Your task to perform on an android device: Is it going to rain today? Image 0: 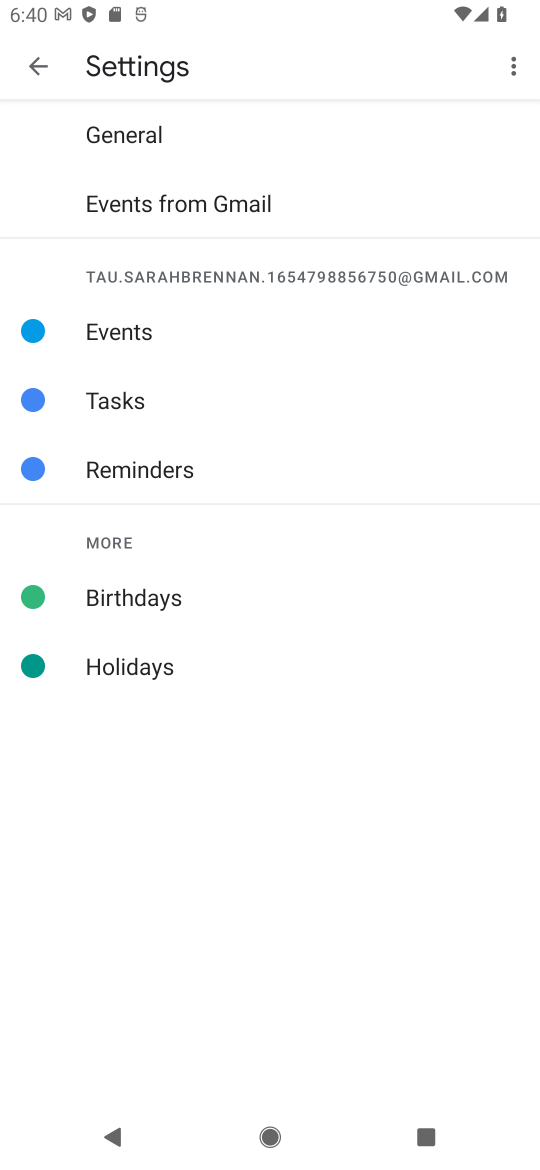
Step 0: press home button
Your task to perform on an android device: Is it going to rain today? Image 1: 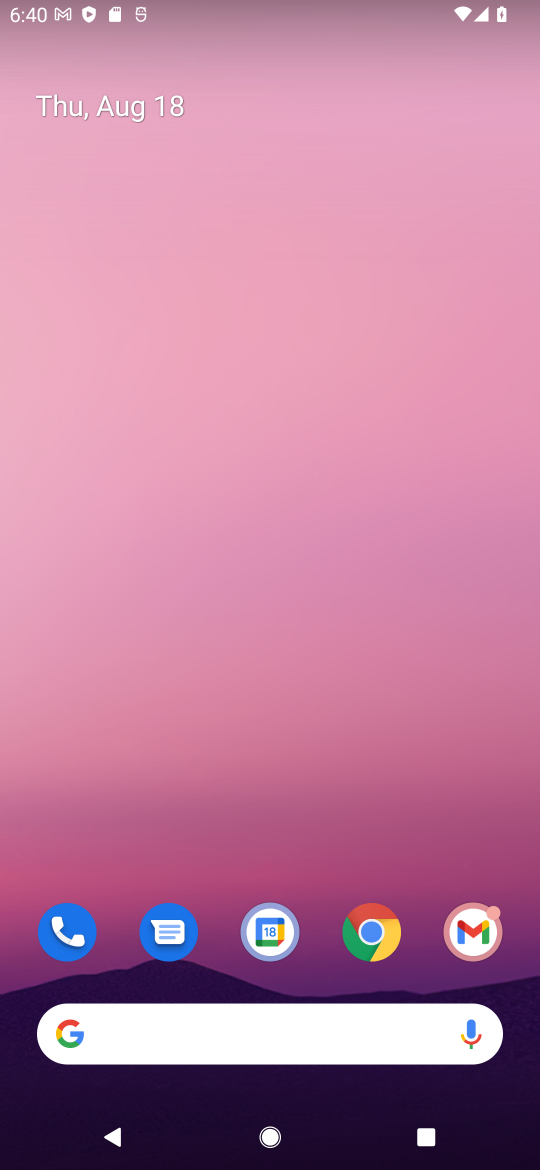
Step 1: drag from (376, 886) to (325, 61)
Your task to perform on an android device: Is it going to rain today? Image 2: 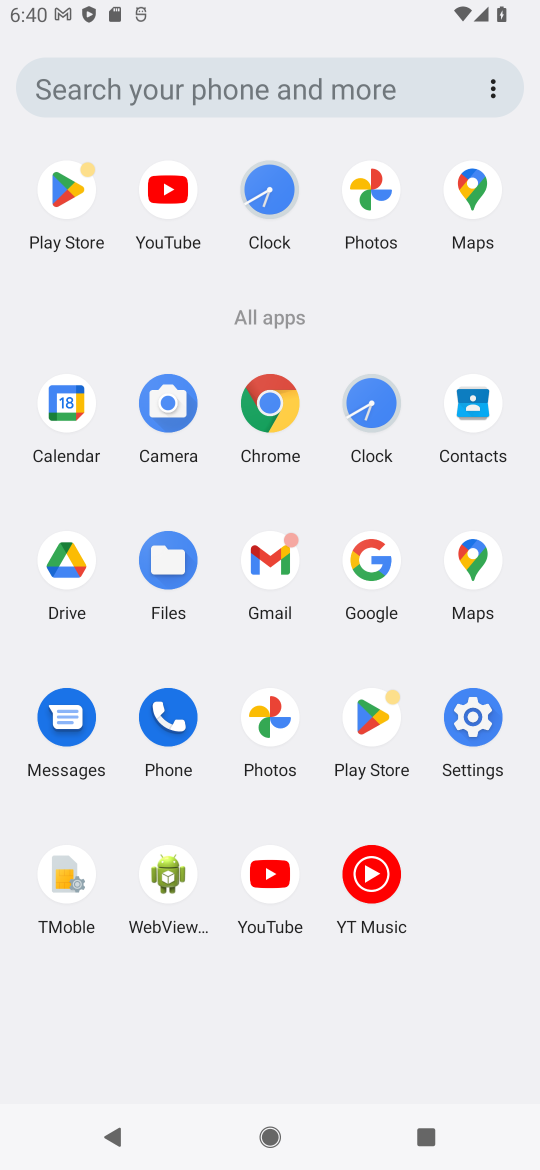
Step 2: click (270, 392)
Your task to perform on an android device: Is it going to rain today? Image 3: 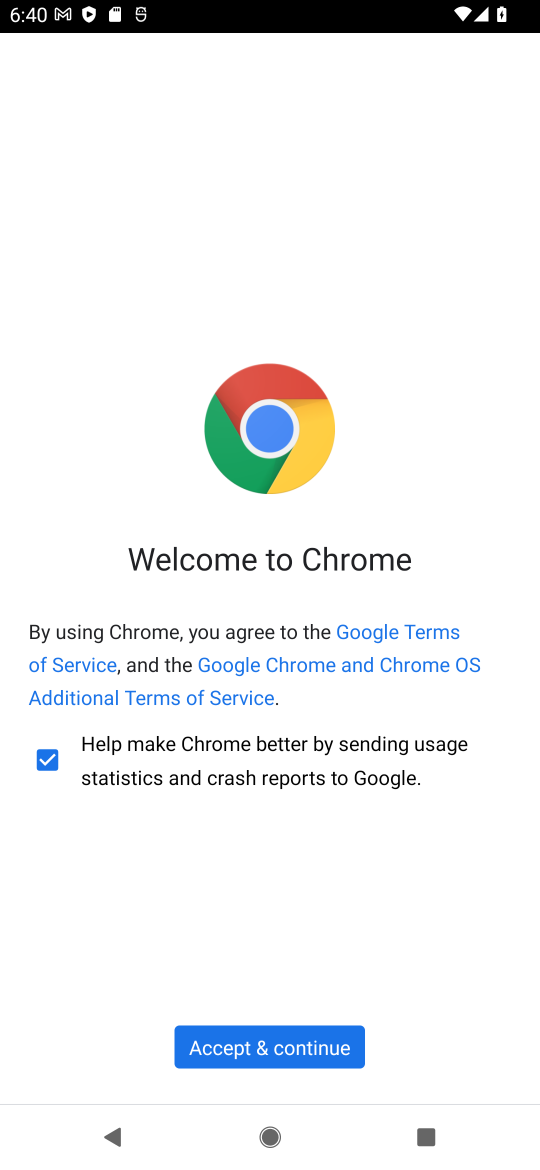
Step 3: click (290, 1050)
Your task to perform on an android device: Is it going to rain today? Image 4: 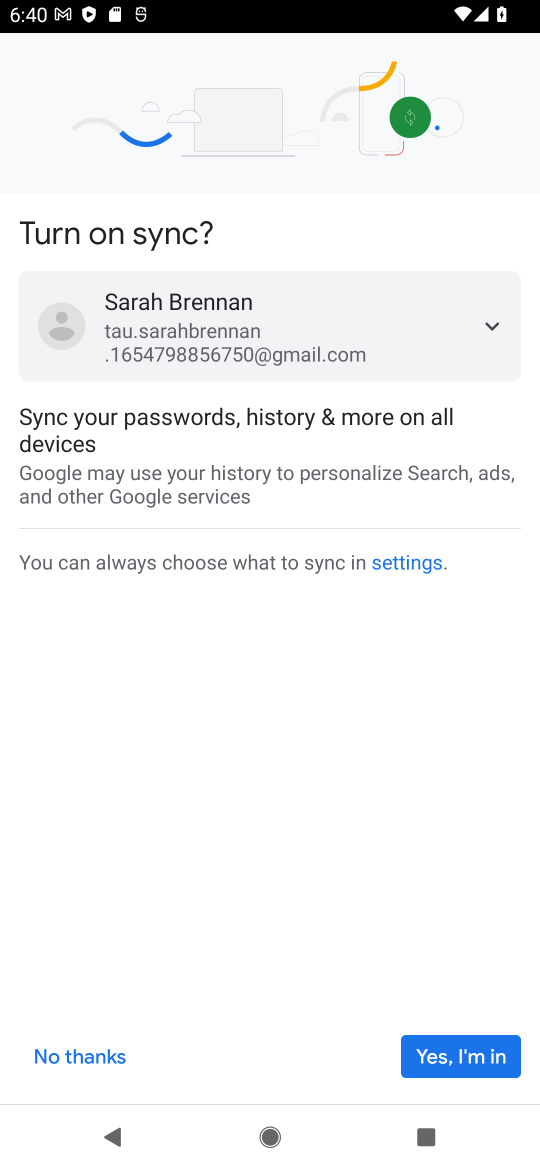
Step 4: click (434, 1050)
Your task to perform on an android device: Is it going to rain today? Image 5: 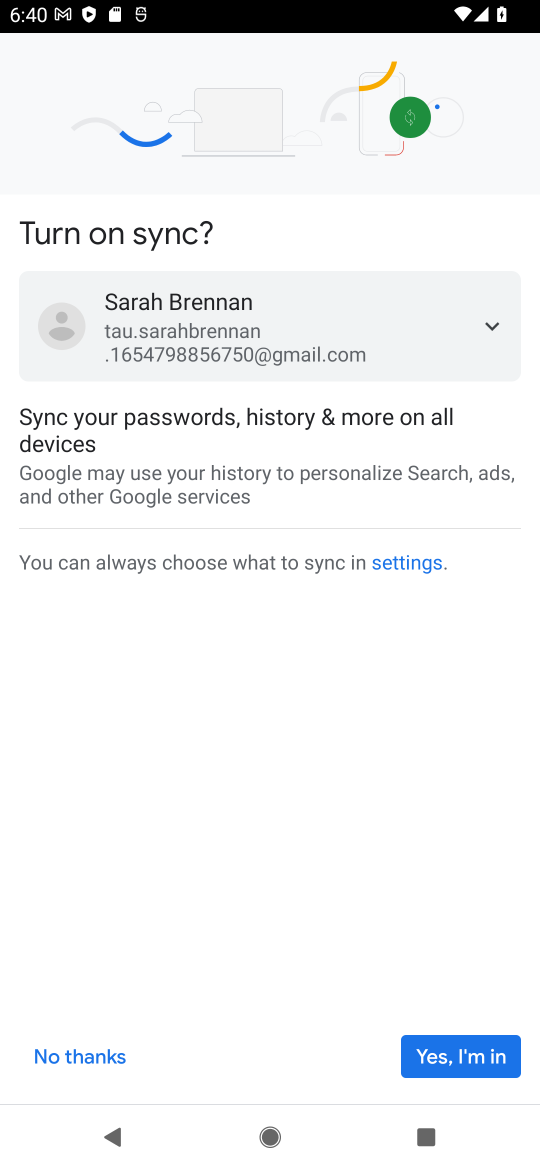
Step 5: click (497, 1059)
Your task to perform on an android device: Is it going to rain today? Image 6: 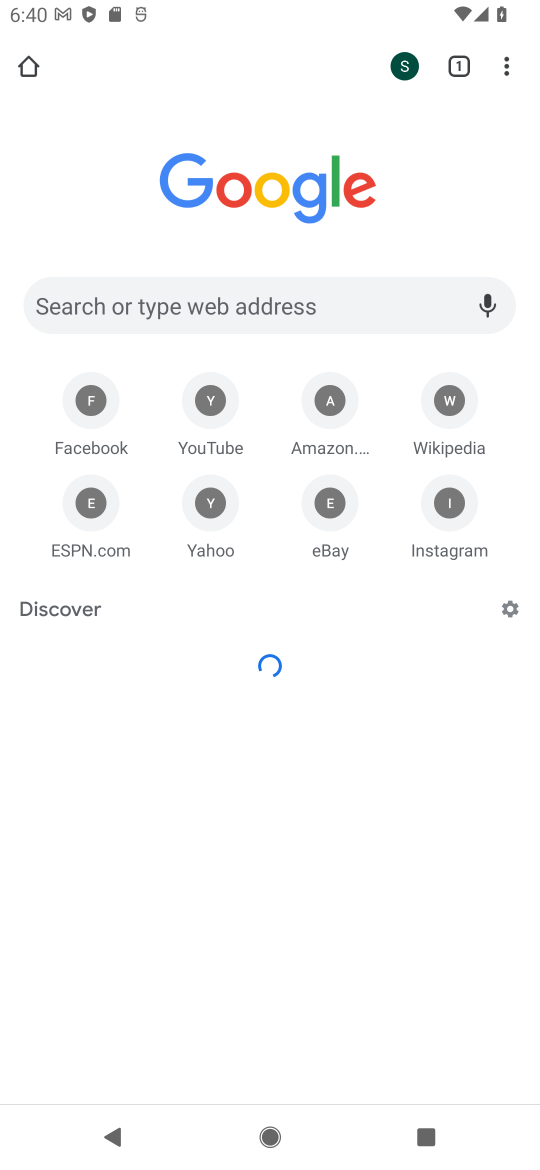
Step 6: click (295, 306)
Your task to perform on an android device: Is it going to rain today? Image 7: 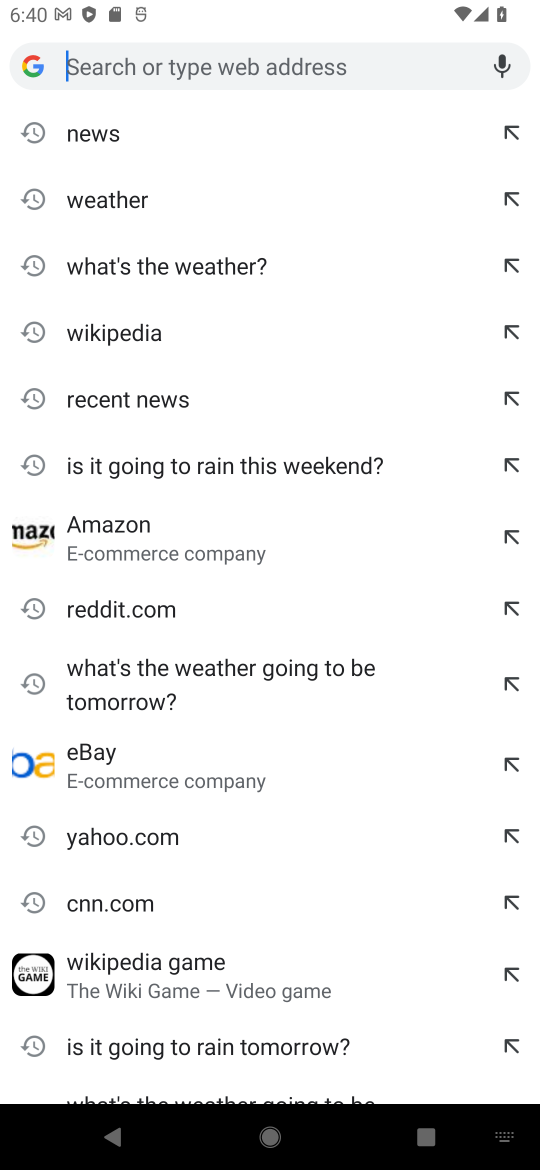
Step 7: type "Is it going to rain today?"
Your task to perform on an android device: Is it going to rain today? Image 8: 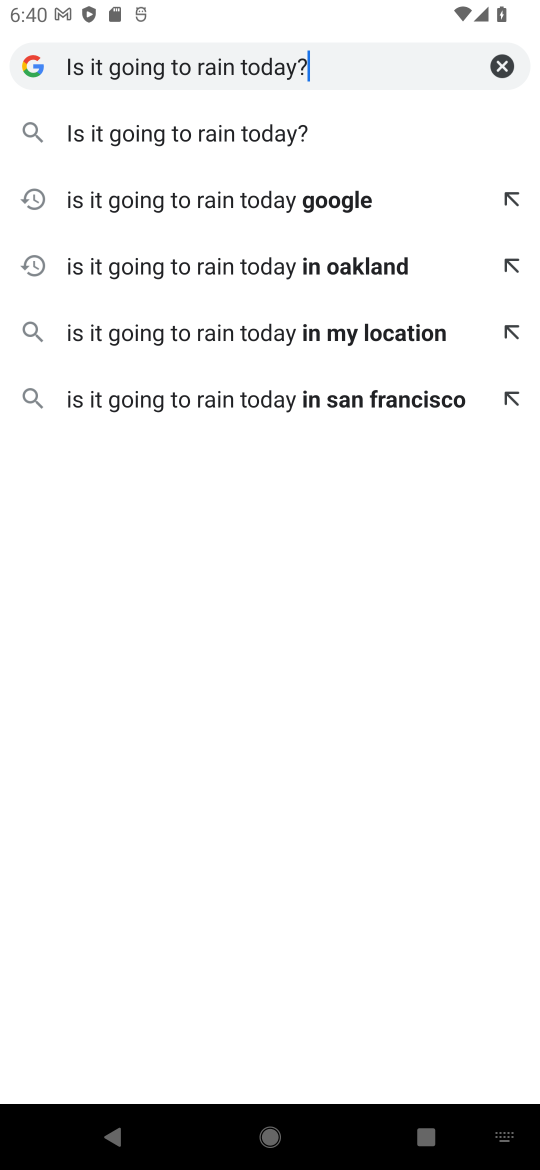
Step 8: click (239, 132)
Your task to perform on an android device: Is it going to rain today? Image 9: 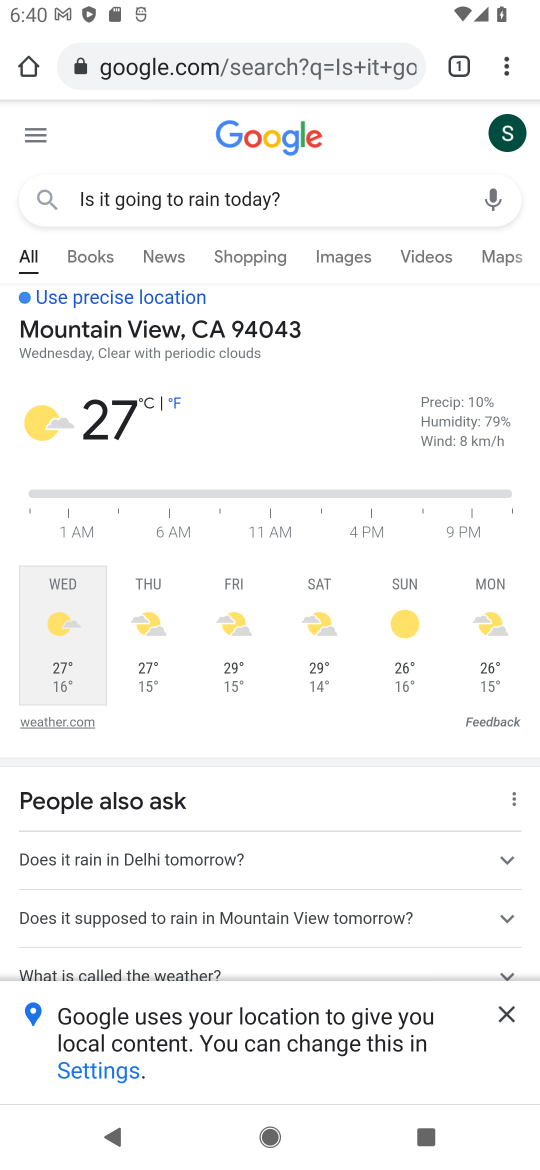
Step 9: task complete